Your task to perform on an android device: Clear the cart on costco.com. Add acer predator to the cart on costco.com, then select checkout. Image 0: 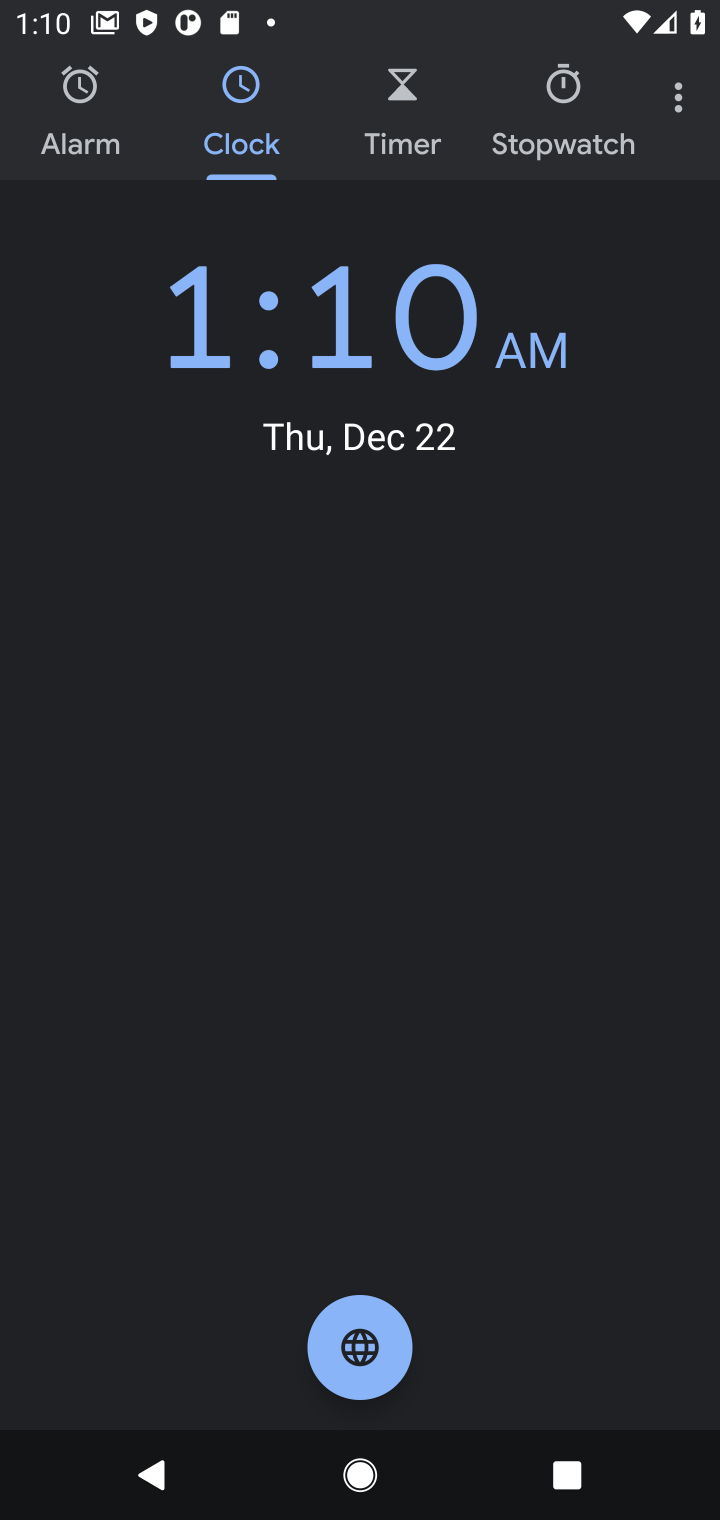
Step 0: press home button
Your task to perform on an android device: Clear the cart on costco.com. Add acer predator to the cart on costco.com, then select checkout. Image 1: 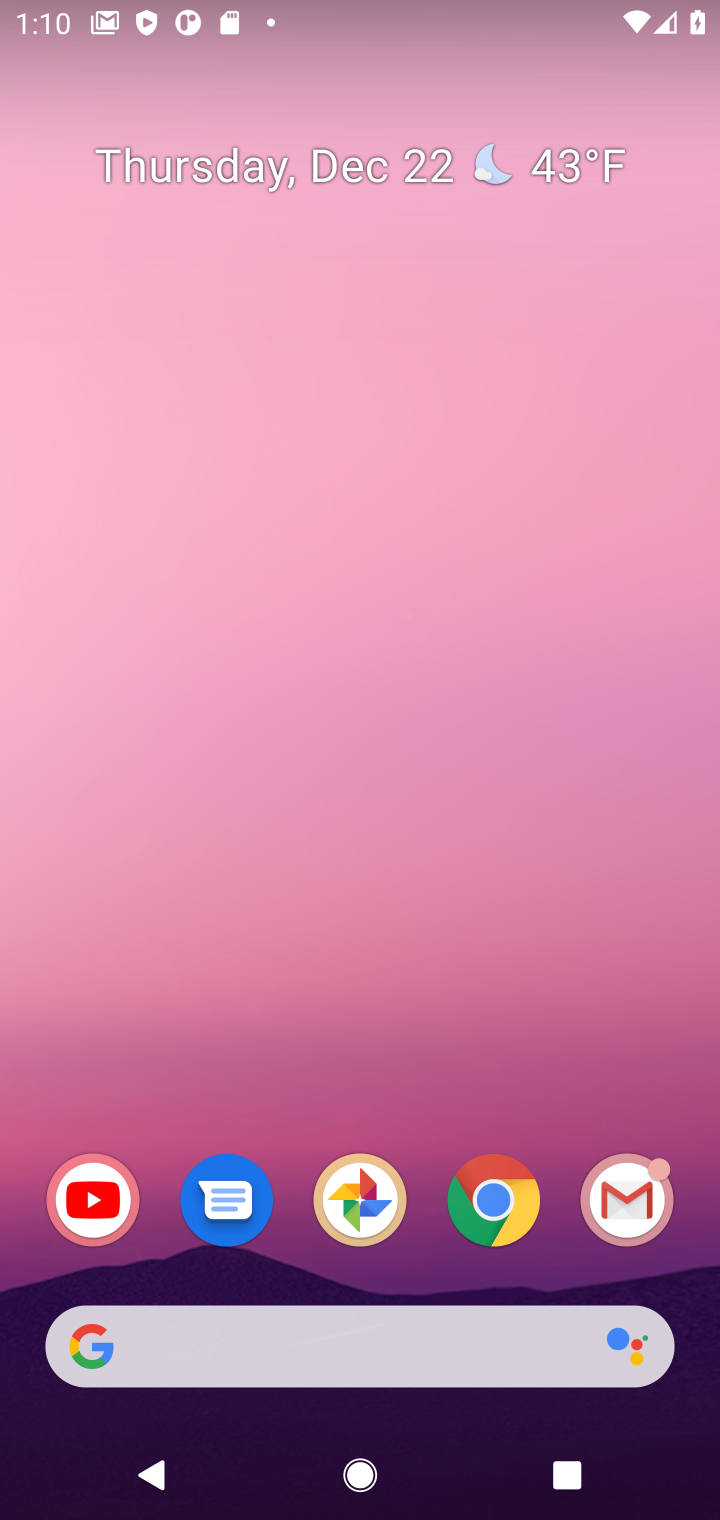
Step 1: click (493, 1198)
Your task to perform on an android device: Clear the cart on costco.com. Add acer predator to the cart on costco.com, then select checkout. Image 2: 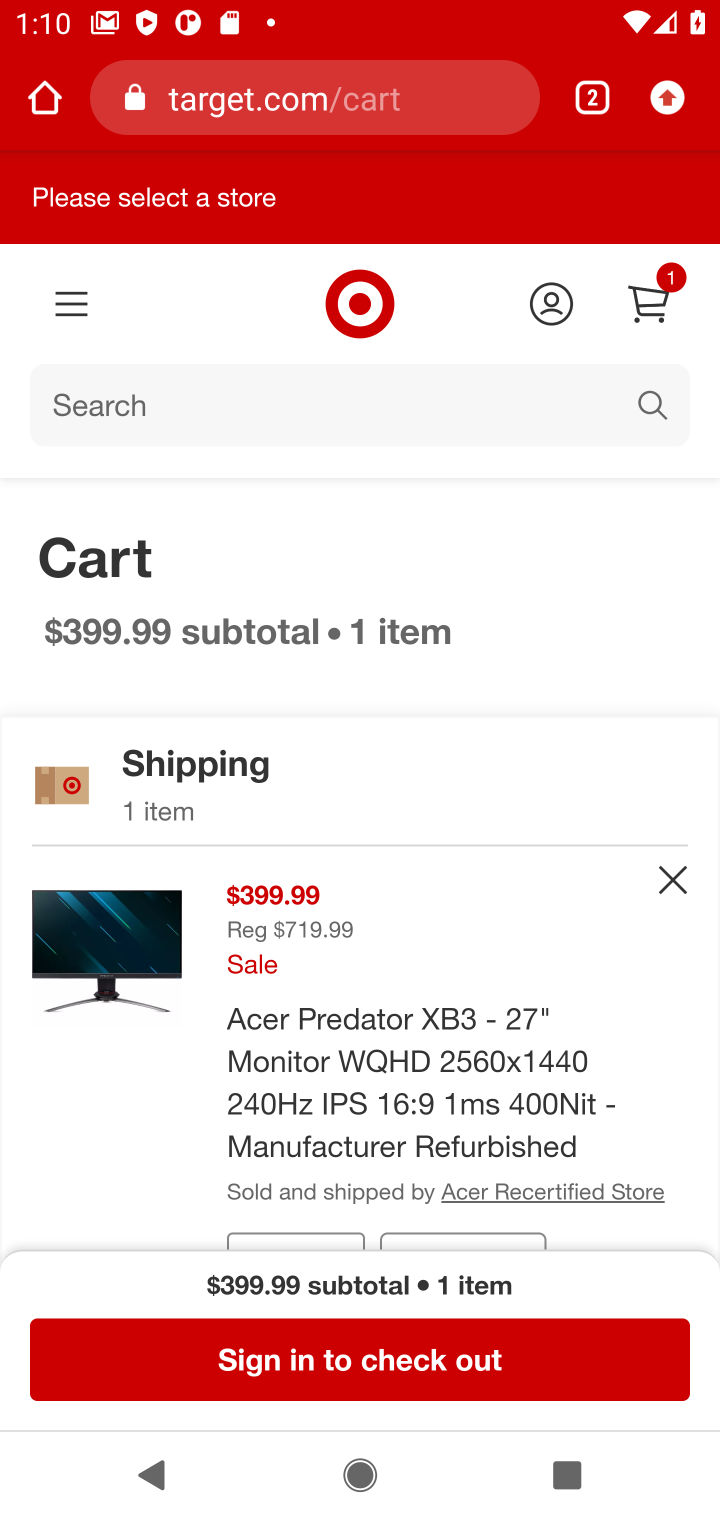
Step 2: click (258, 117)
Your task to perform on an android device: Clear the cart on costco.com. Add acer predator to the cart on costco.com, then select checkout. Image 3: 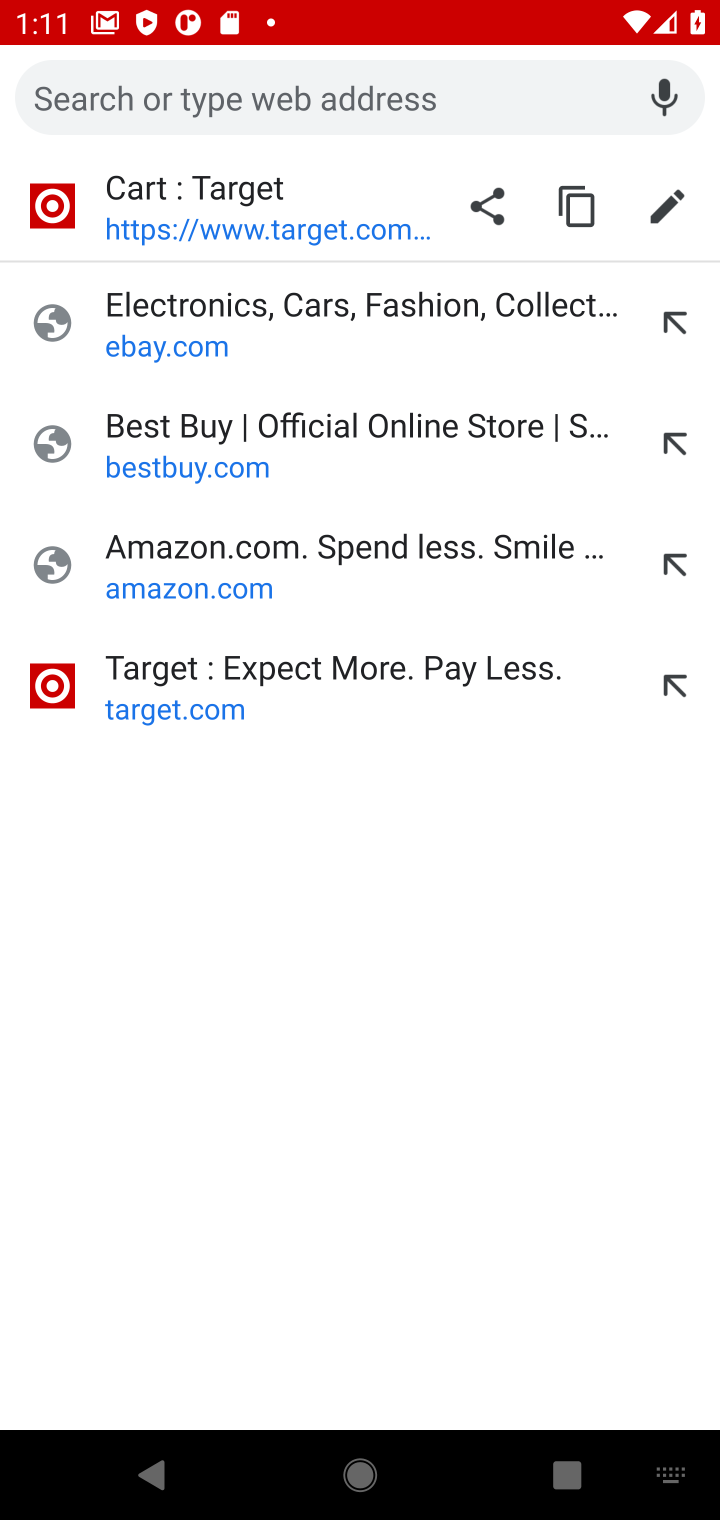
Step 3: type "costco.com"
Your task to perform on an android device: Clear the cart on costco.com. Add acer predator to the cart on costco.com, then select checkout. Image 4: 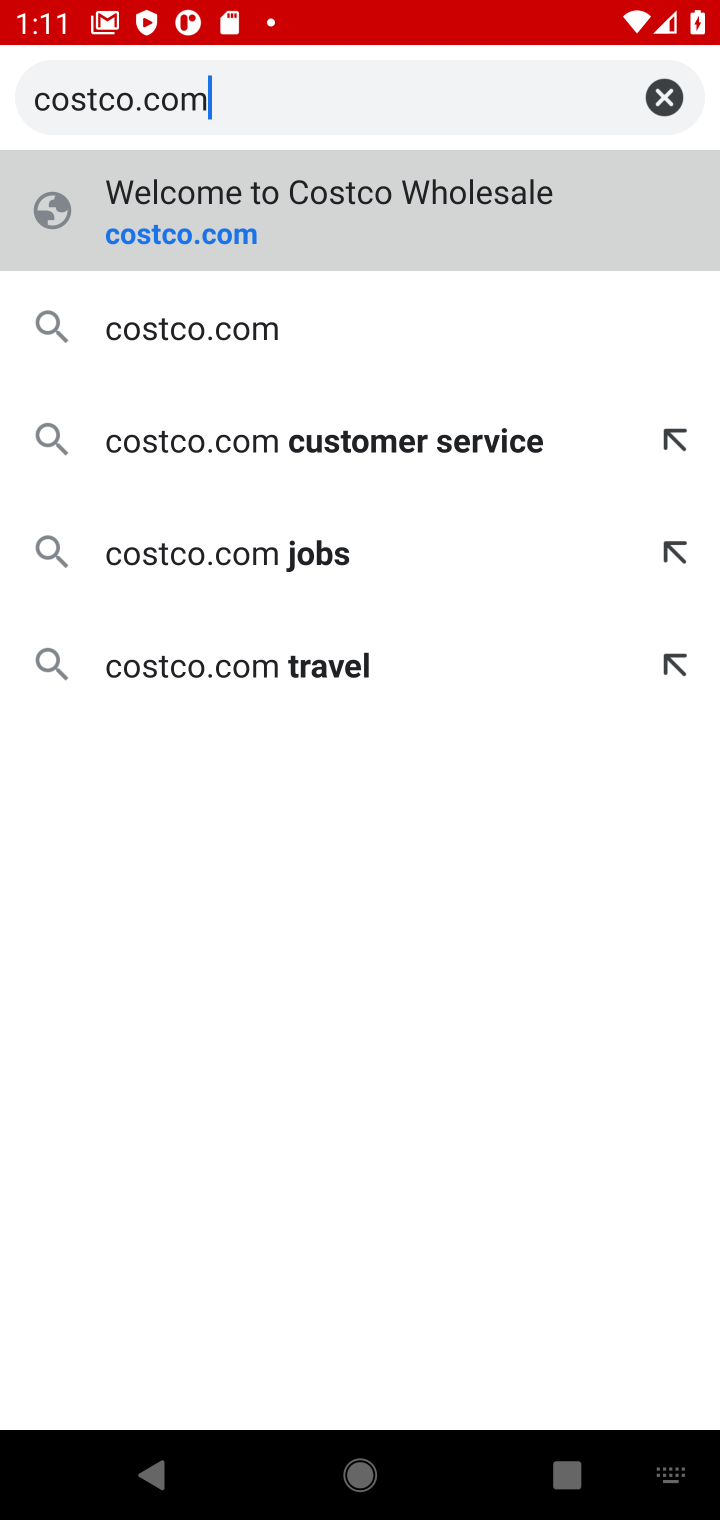
Step 4: click (161, 245)
Your task to perform on an android device: Clear the cart on costco.com. Add acer predator to the cart on costco.com, then select checkout. Image 5: 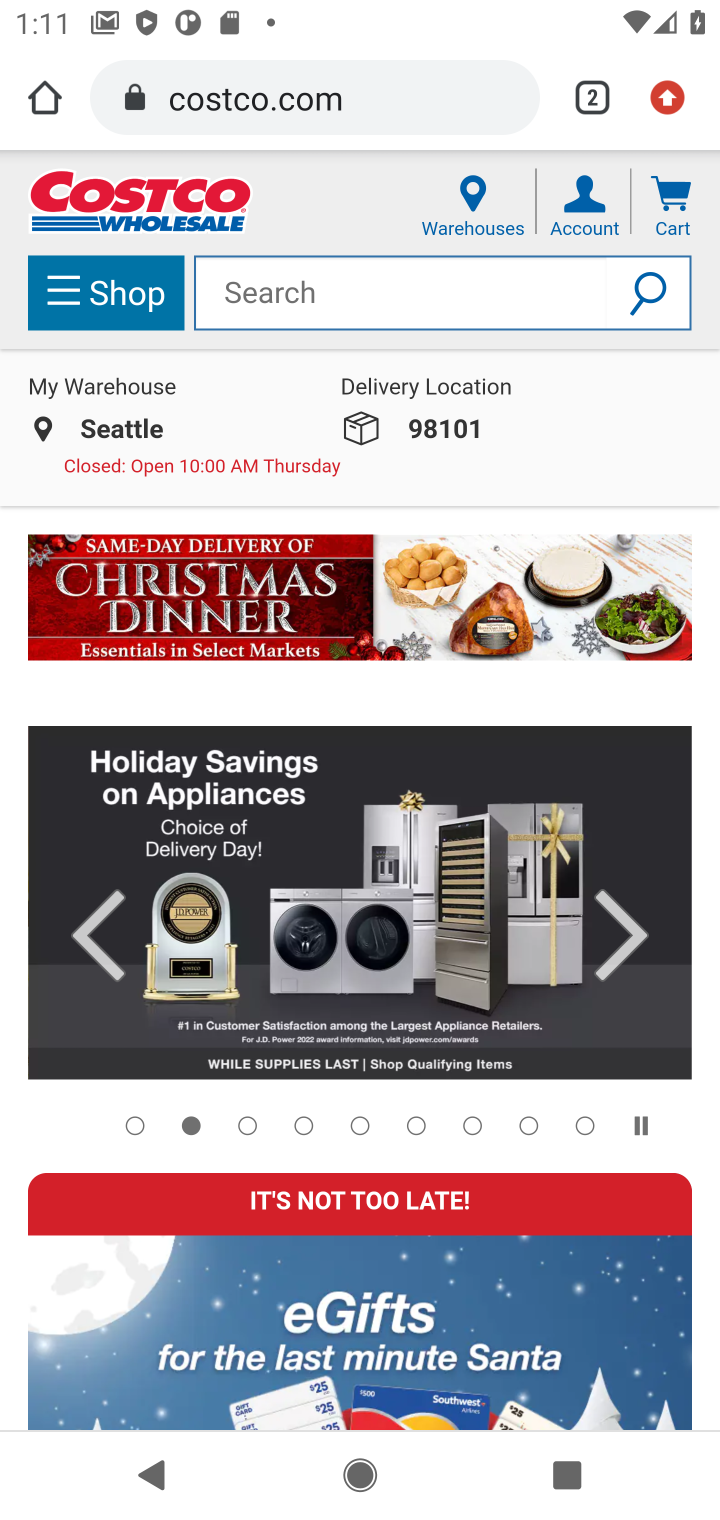
Step 5: click (670, 221)
Your task to perform on an android device: Clear the cart on costco.com. Add acer predator to the cart on costco.com, then select checkout. Image 6: 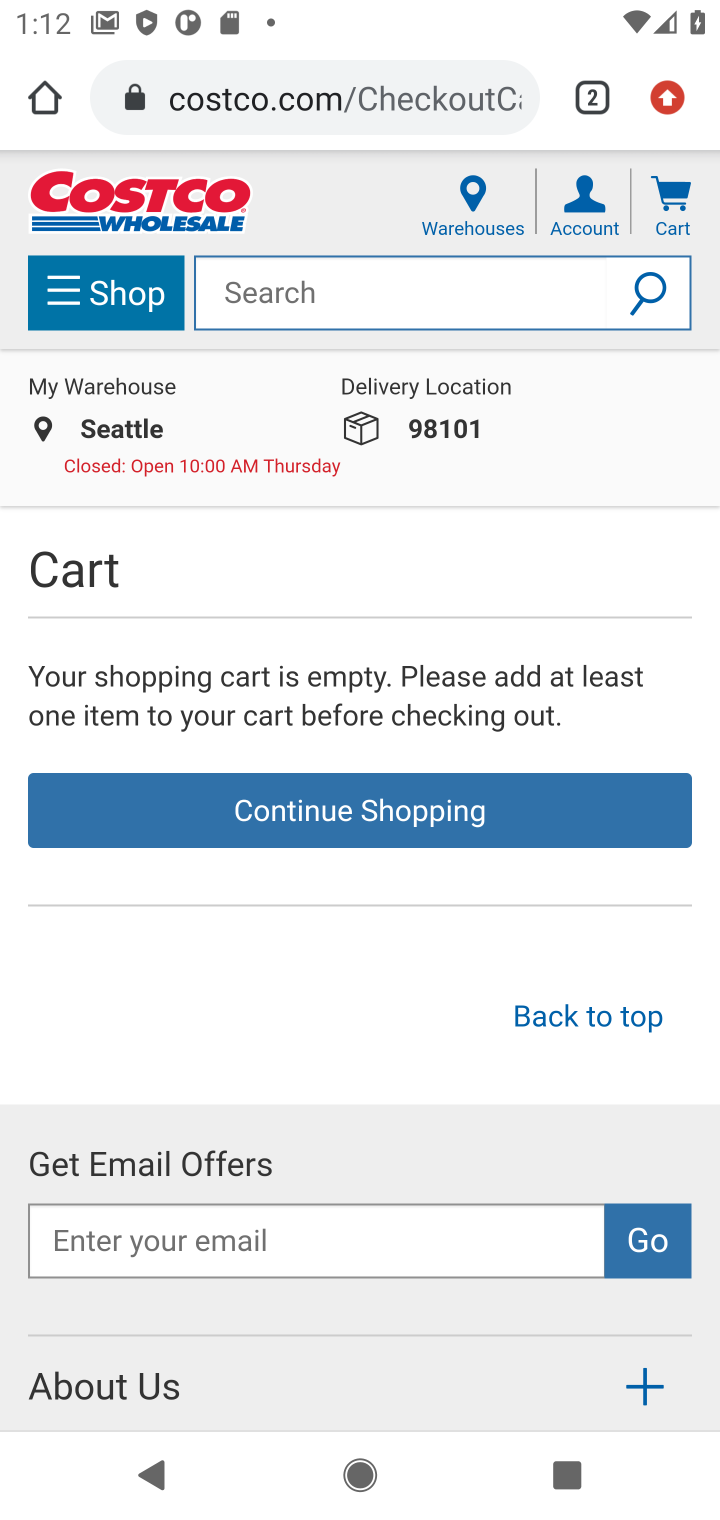
Step 6: click (317, 287)
Your task to perform on an android device: Clear the cart on costco.com. Add acer predator to the cart on costco.com, then select checkout. Image 7: 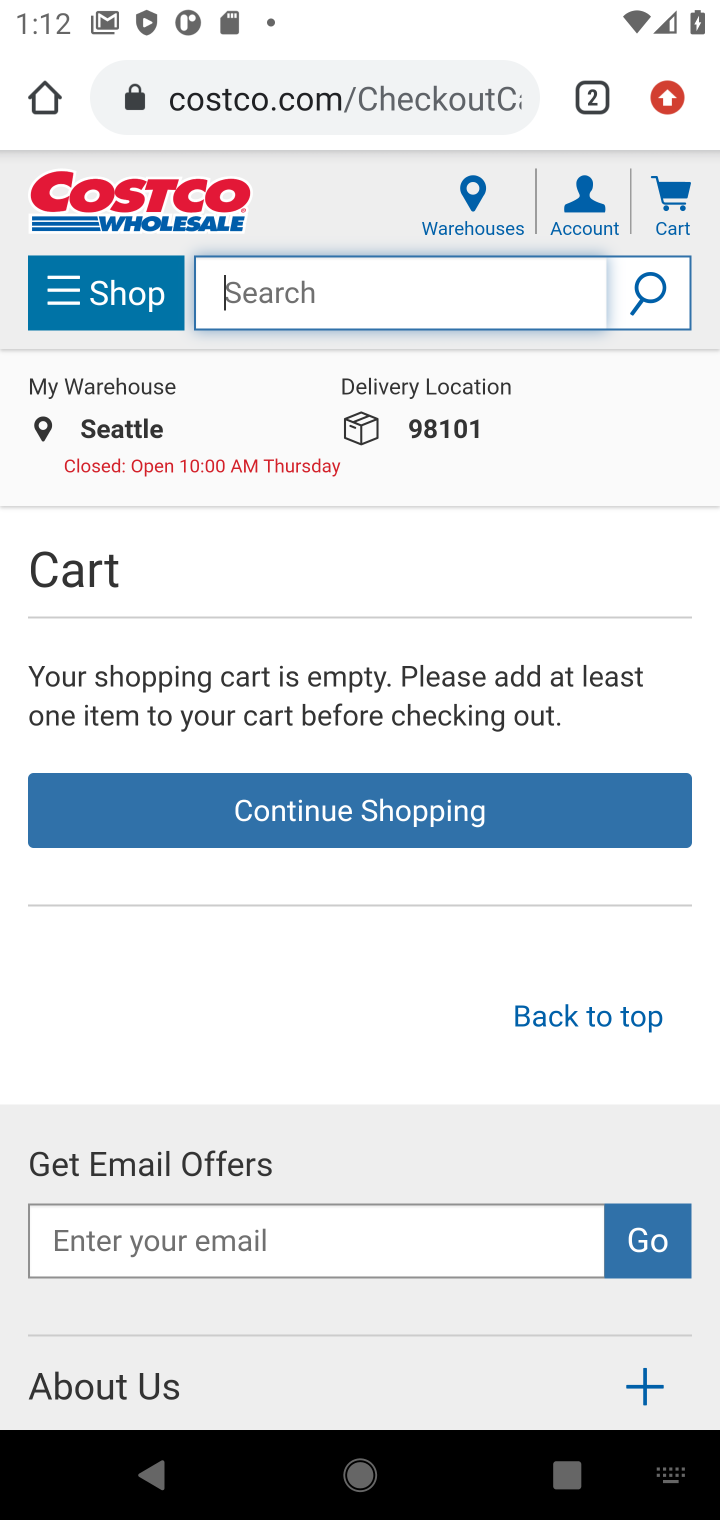
Step 7: type "acer predator"
Your task to perform on an android device: Clear the cart on costco.com. Add acer predator to the cart on costco.com, then select checkout. Image 8: 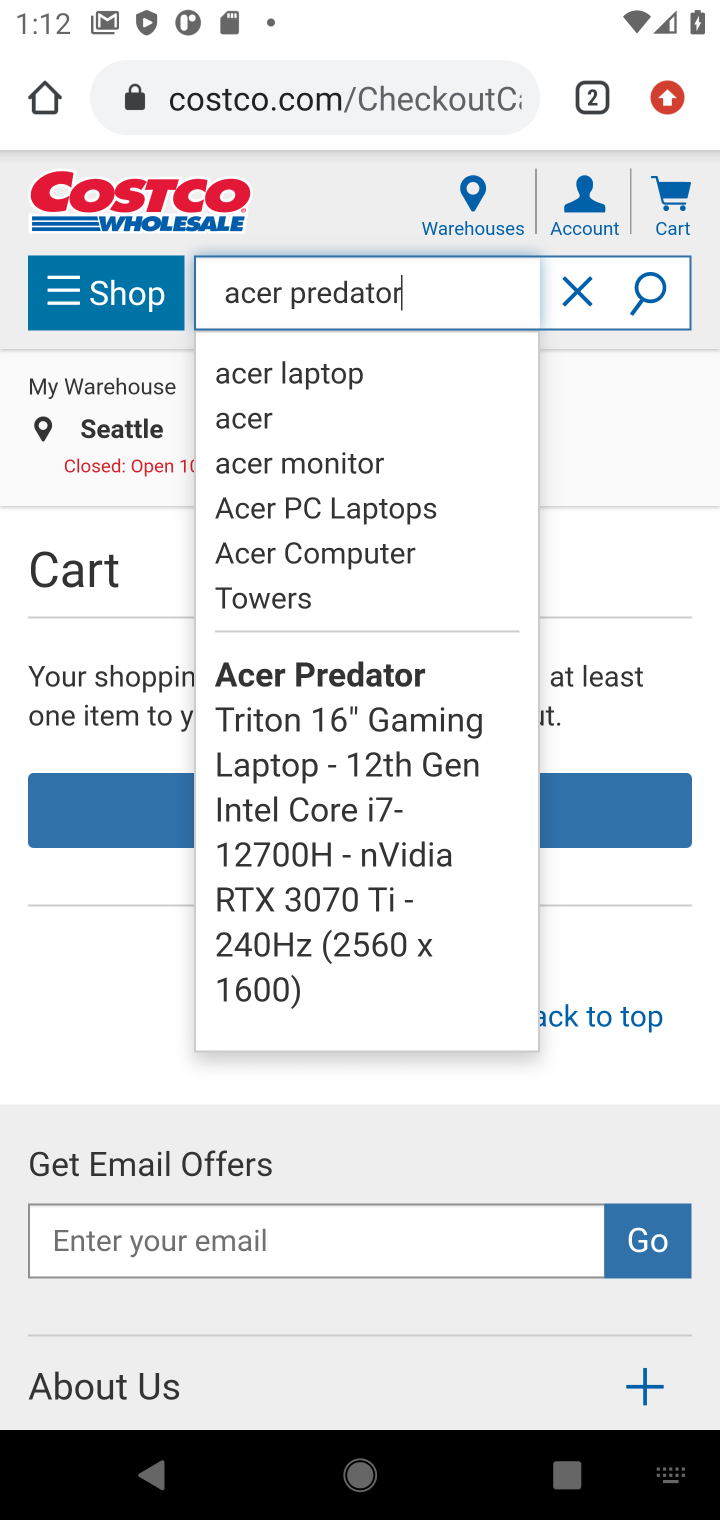
Step 8: click (643, 289)
Your task to perform on an android device: Clear the cart on costco.com. Add acer predator to the cart on costco.com, then select checkout. Image 9: 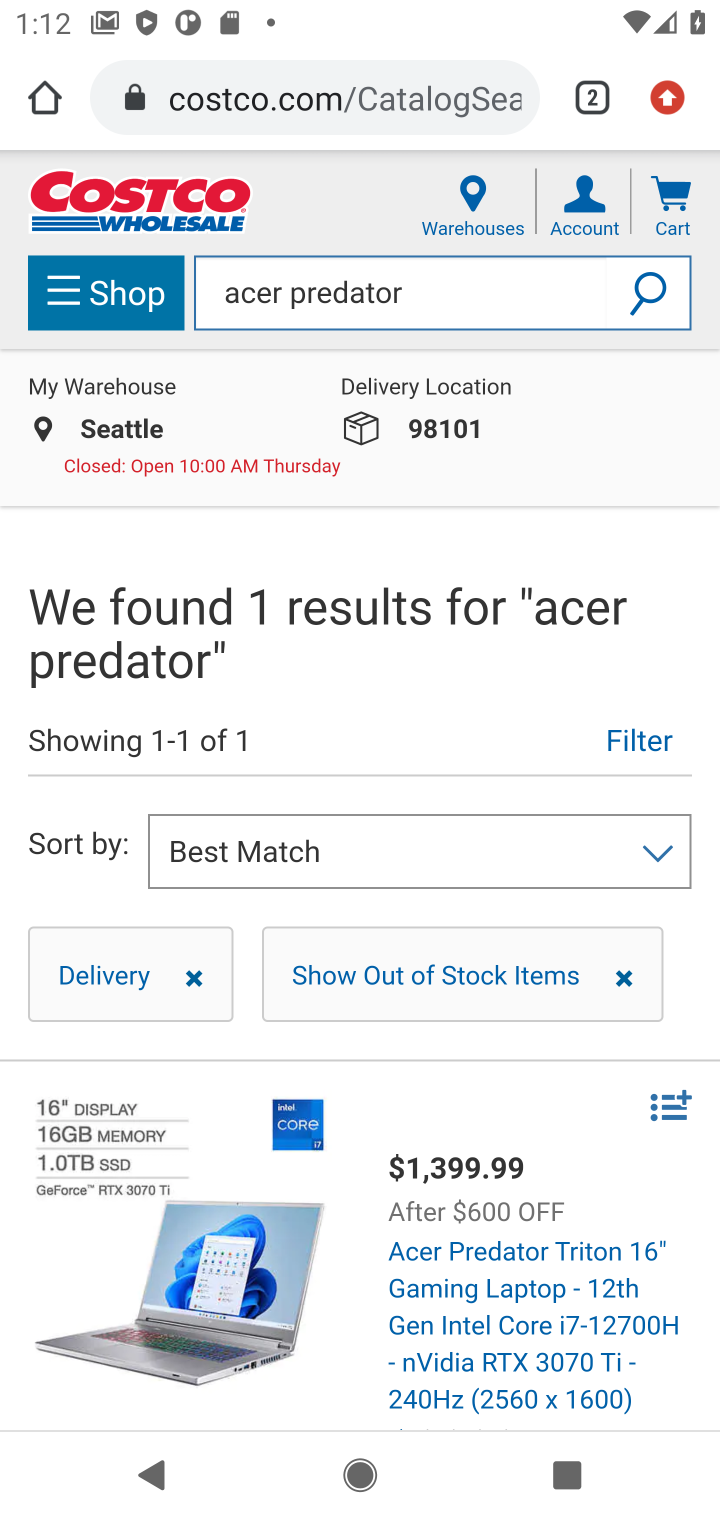
Step 9: drag from (269, 1166) to (257, 614)
Your task to perform on an android device: Clear the cart on costco.com. Add acer predator to the cart on costco.com, then select checkout. Image 10: 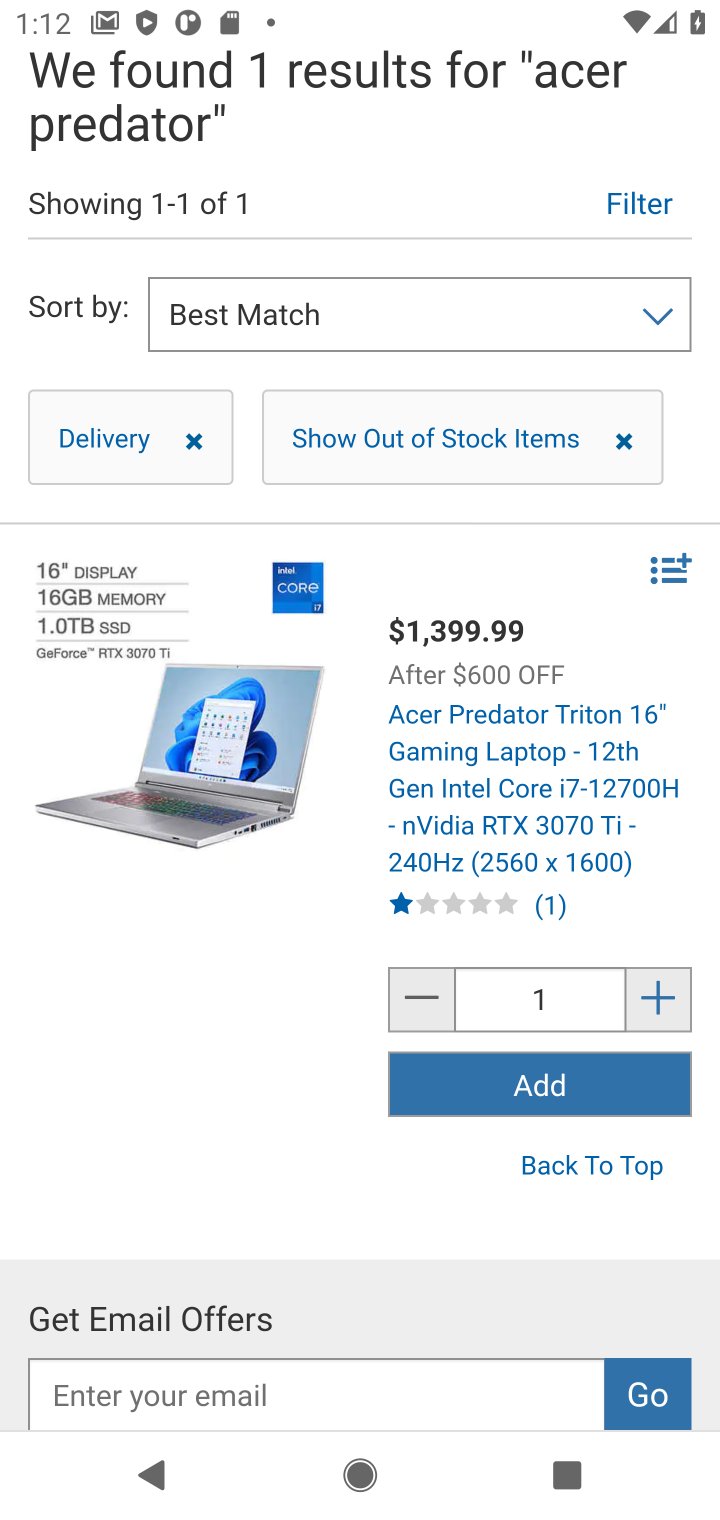
Step 10: click (532, 1098)
Your task to perform on an android device: Clear the cart on costco.com. Add acer predator to the cart on costco.com, then select checkout. Image 11: 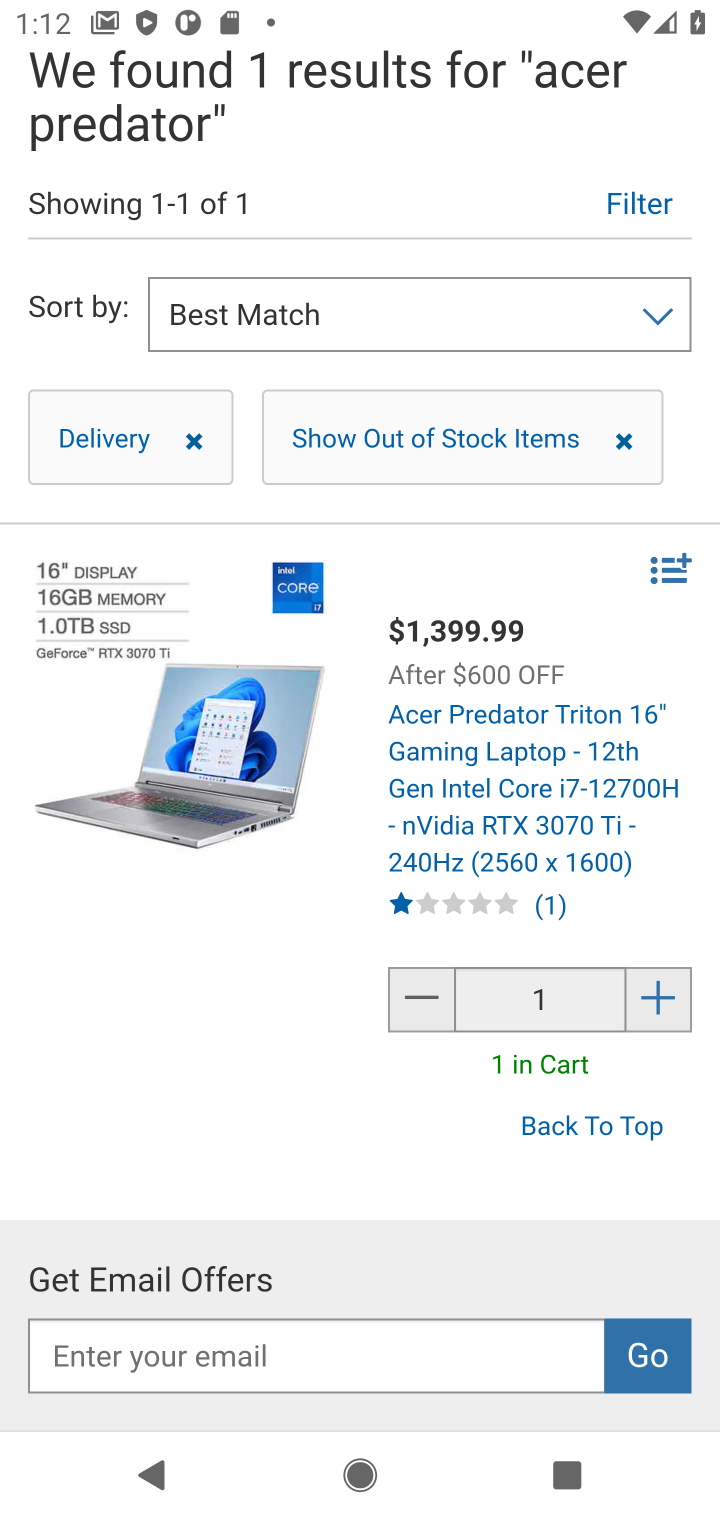
Step 11: drag from (445, 233) to (362, 823)
Your task to perform on an android device: Clear the cart on costco.com. Add acer predator to the cart on costco.com, then select checkout. Image 12: 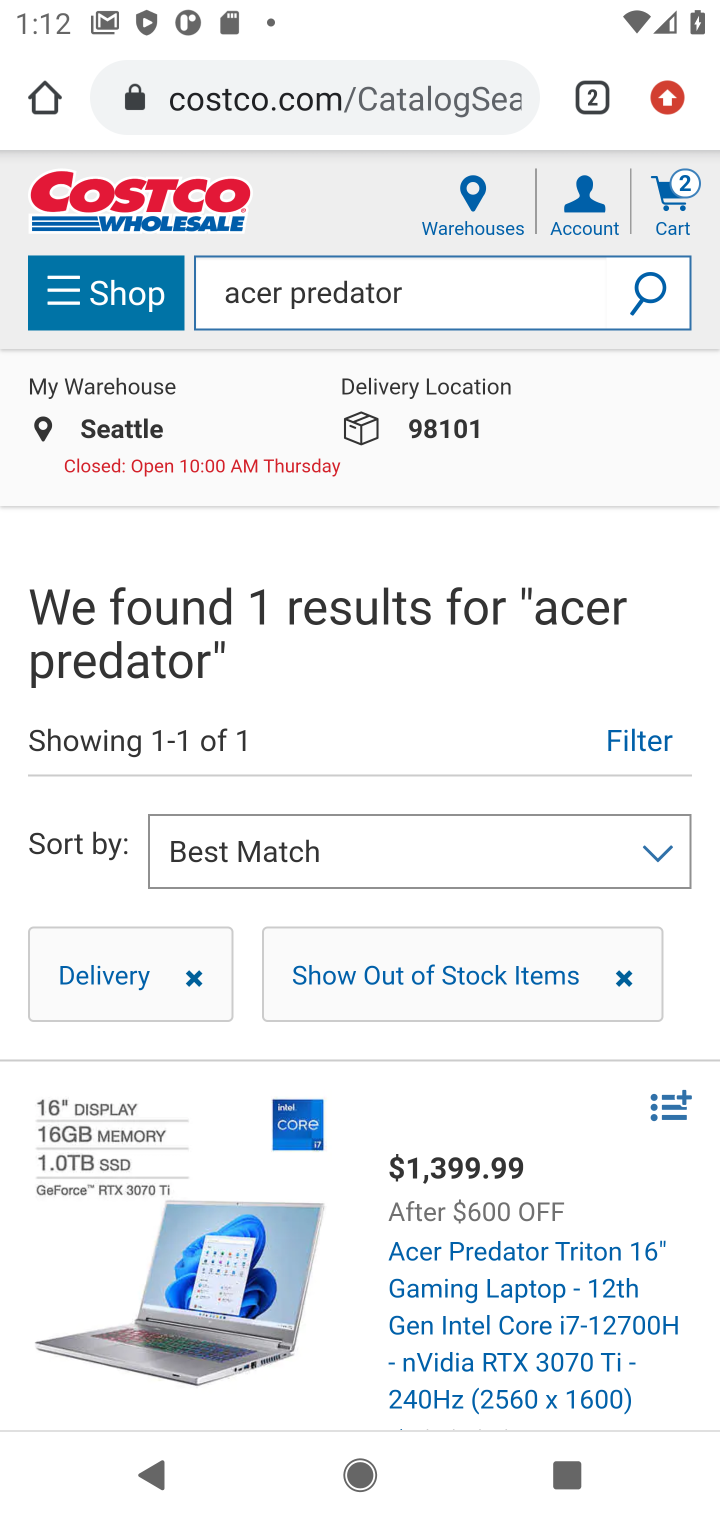
Step 12: click (675, 214)
Your task to perform on an android device: Clear the cart on costco.com. Add acer predator to the cart on costco.com, then select checkout. Image 13: 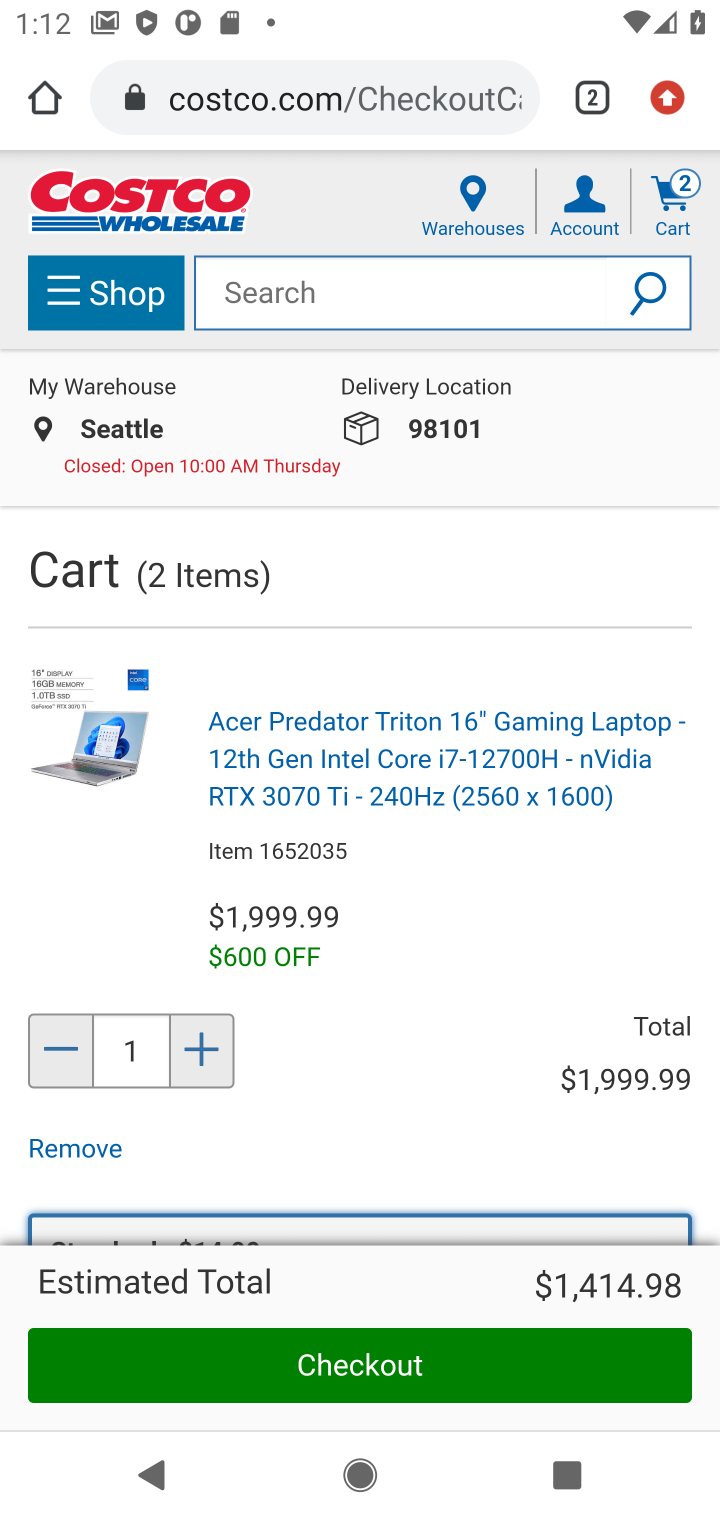
Step 13: click (301, 1364)
Your task to perform on an android device: Clear the cart on costco.com. Add acer predator to the cart on costco.com, then select checkout. Image 14: 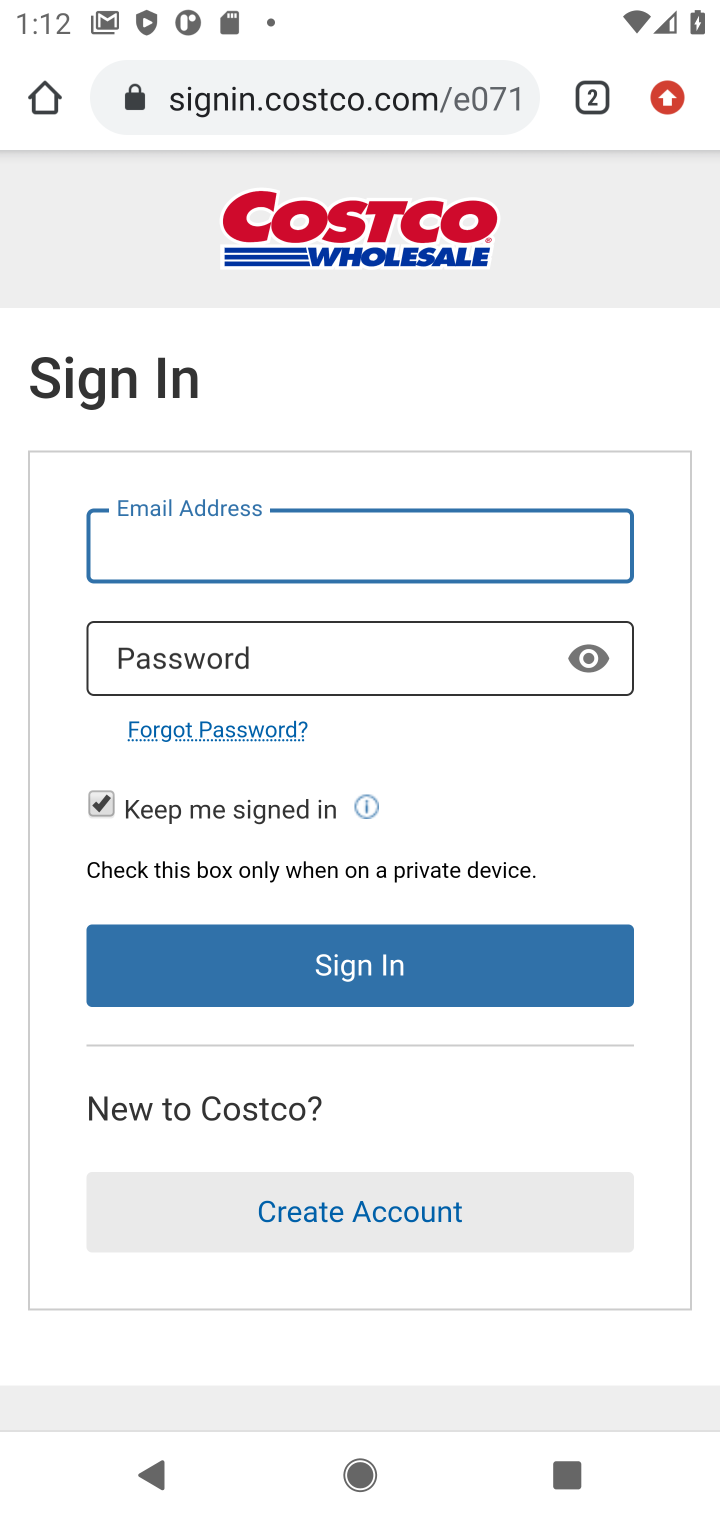
Step 14: task complete